Your task to perform on an android device: find photos in the google photos app Image 0: 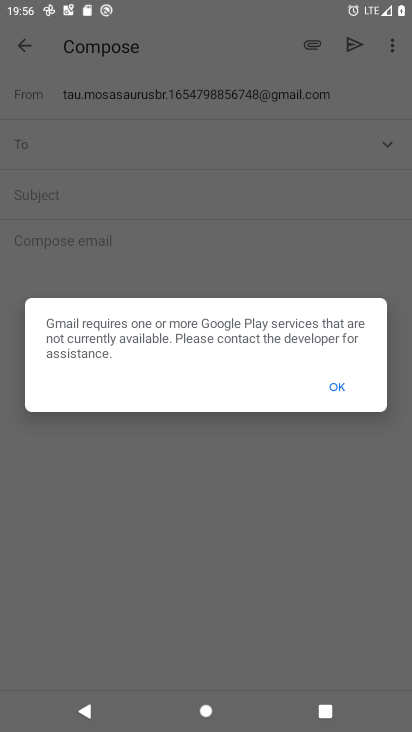
Step 0: press home button
Your task to perform on an android device: find photos in the google photos app Image 1: 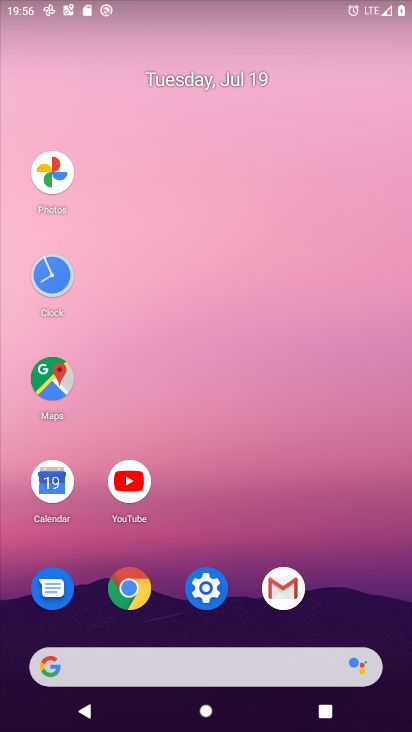
Step 1: click (48, 174)
Your task to perform on an android device: find photos in the google photos app Image 2: 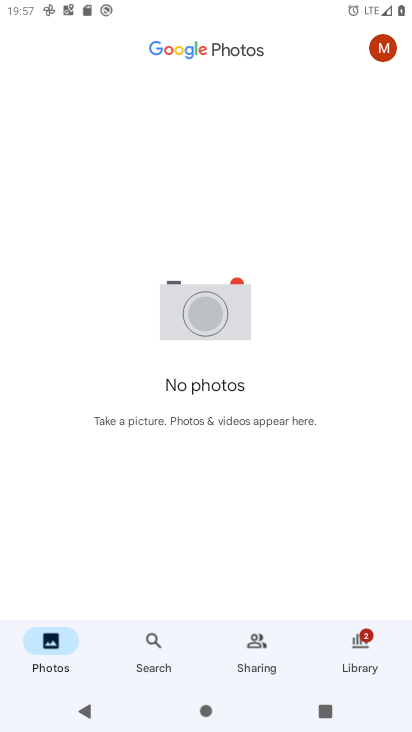
Step 2: click (145, 649)
Your task to perform on an android device: find photos in the google photos app Image 3: 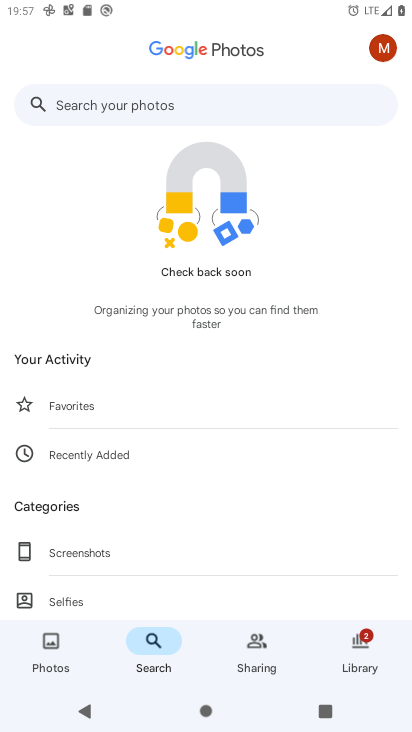
Step 3: task complete